Your task to perform on an android device: toggle pop-ups in chrome Image 0: 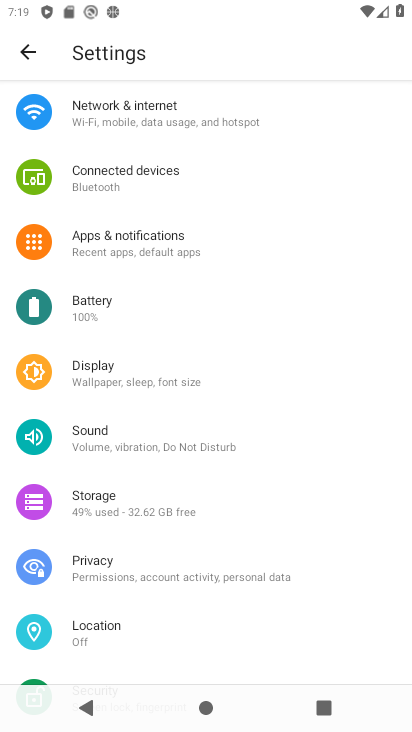
Step 0: press back button
Your task to perform on an android device: toggle pop-ups in chrome Image 1: 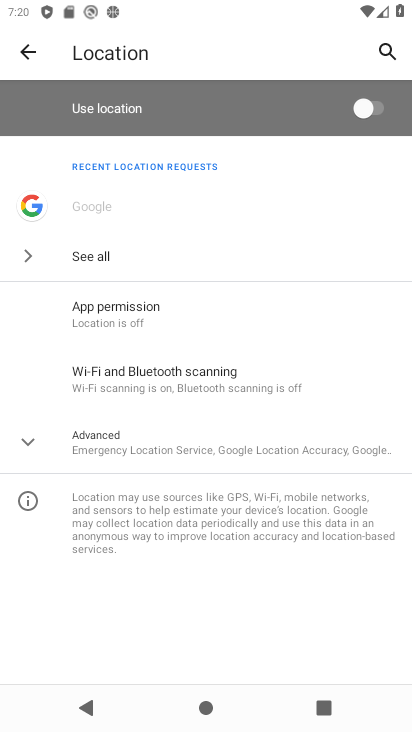
Step 1: press back button
Your task to perform on an android device: toggle pop-ups in chrome Image 2: 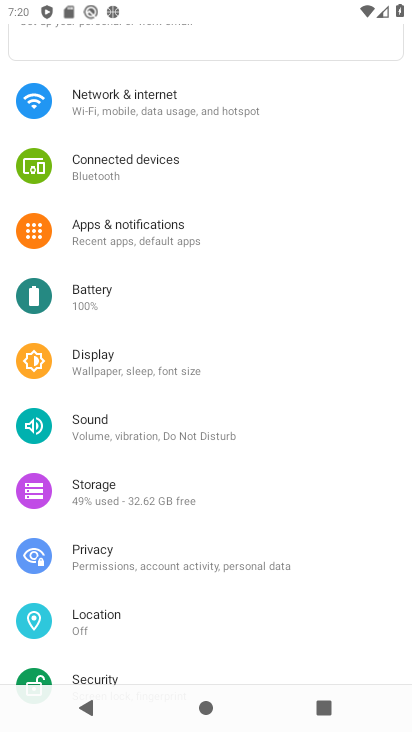
Step 2: press back button
Your task to perform on an android device: toggle pop-ups in chrome Image 3: 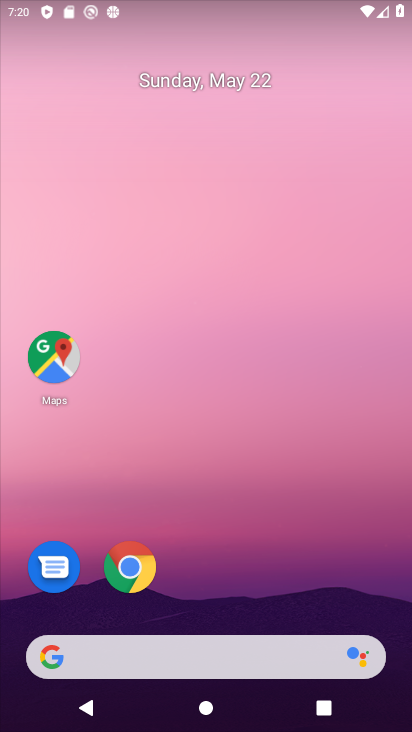
Step 3: click (125, 563)
Your task to perform on an android device: toggle pop-ups in chrome Image 4: 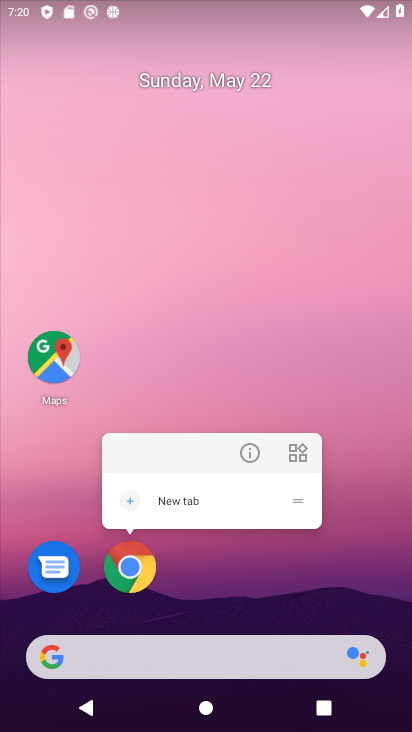
Step 4: click (125, 572)
Your task to perform on an android device: toggle pop-ups in chrome Image 5: 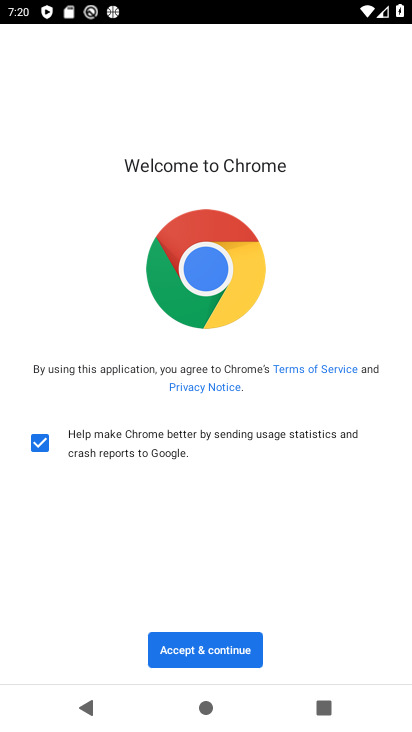
Step 5: click (216, 634)
Your task to perform on an android device: toggle pop-ups in chrome Image 6: 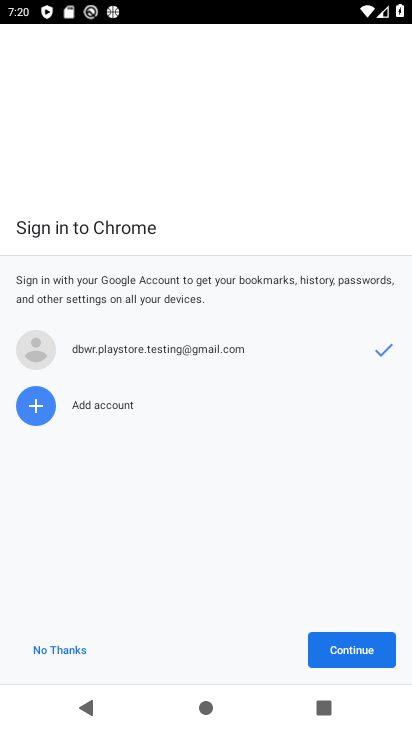
Step 6: click (343, 653)
Your task to perform on an android device: toggle pop-ups in chrome Image 7: 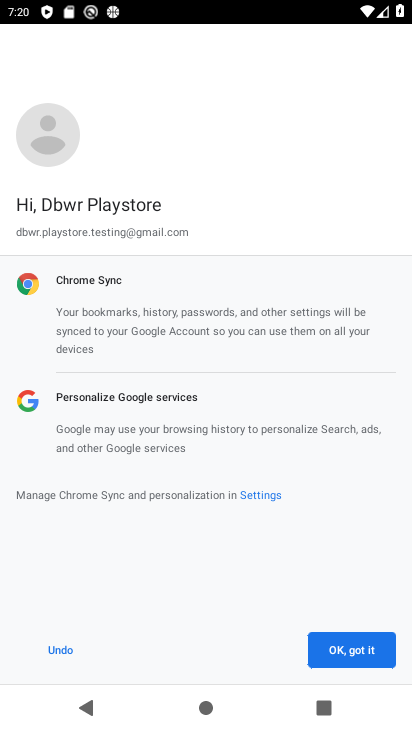
Step 7: click (358, 647)
Your task to perform on an android device: toggle pop-ups in chrome Image 8: 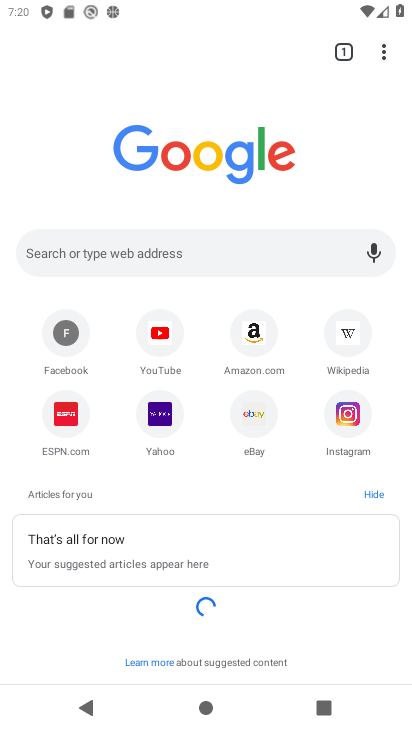
Step 8: drag from (384, 52) to (214, 434)
Your task to perform on an android device: toggle pop-ups in chrome Image 9: 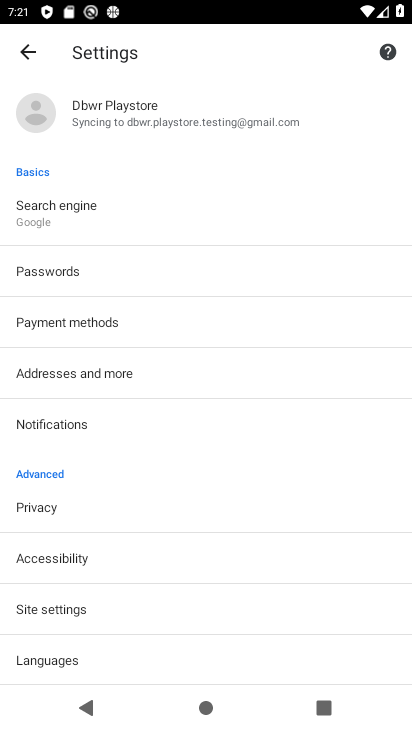
Step 9: click (79, 607)
Your task to perform on an android device: toggle pop-ups in chrome Image 10: 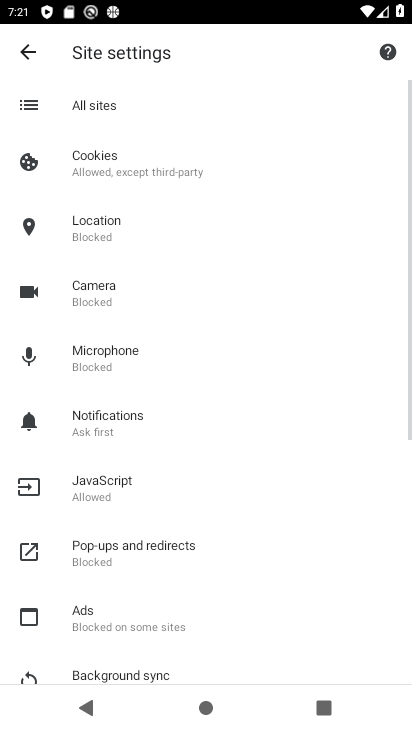
Step 10: drag from (157, 462) to (164, 429)
Your task to perform on an android device: toggle pop-ups in chrome Image 11: 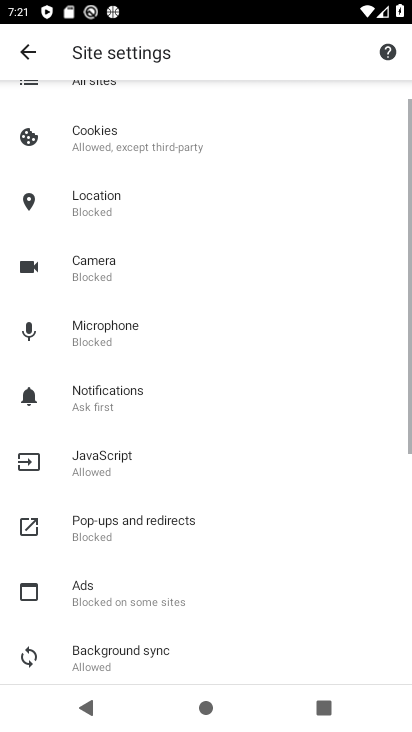
Step 11: click (113, 517)
Your task to perform on an android device: toggle pop-ups in chrome Image 12: 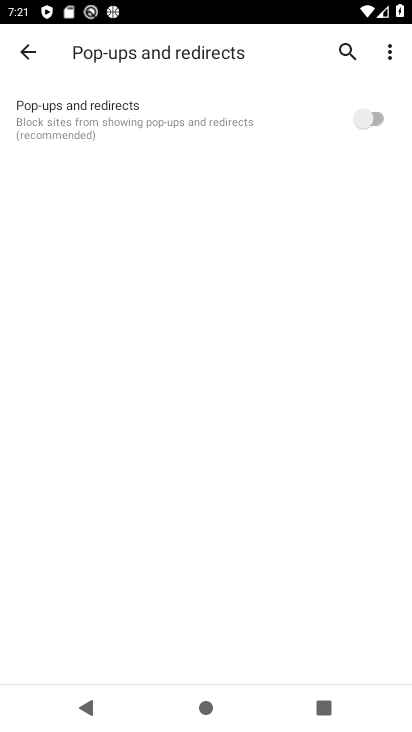
Step 12: click (366, 113)
Your task to perform on an android device: toggle pop-ups in chrome Image 13: 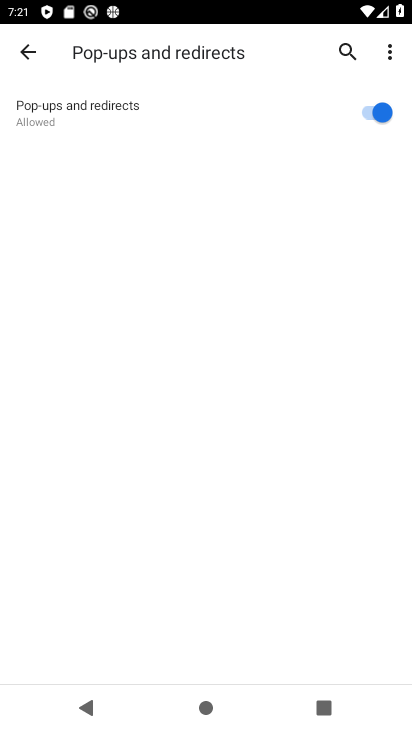
Step 13: task complete